Your task to perform on an android device: Go to Yahoo.com Image 0: 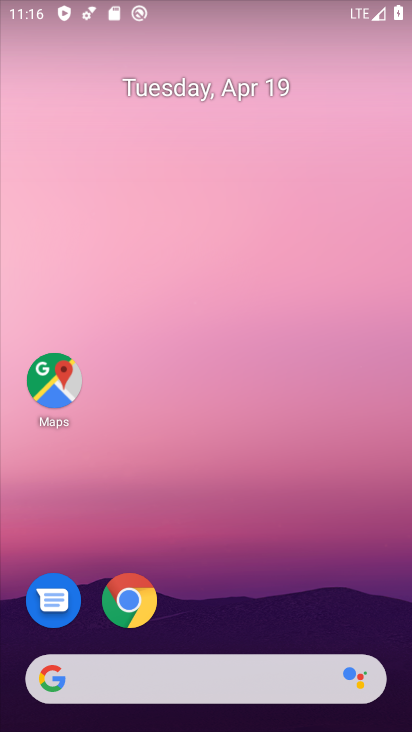
Step 0: click (130, 605)
Your task to perform on an android device: Go to Yahoo.com Image 1: 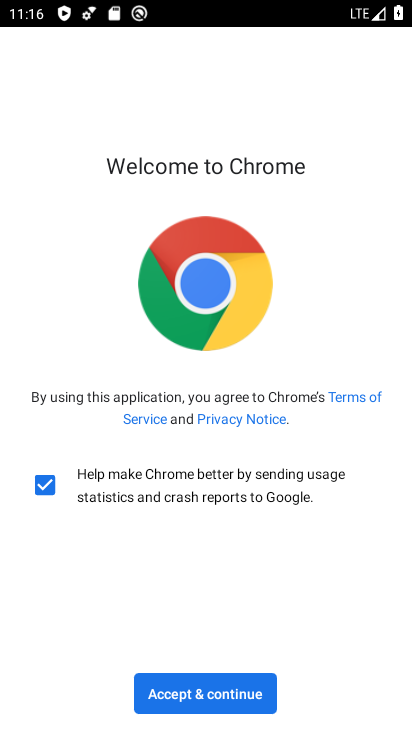
Step 1: click (203, 687)
Your task to perform on an android device: Go to Yahoo.com Image 2: 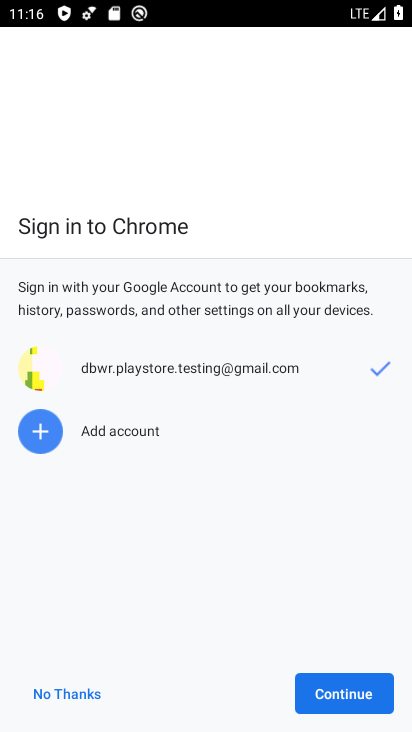
Step 2: click (25, 697)
Your task to perform on an android device: Go to Yahoo.com Image 3: 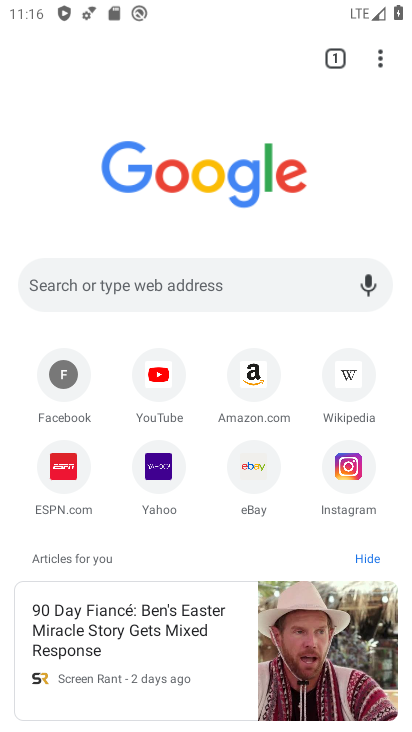
Step 3: click (155, 471)
Your task to perform on an android device: Go to Yahoo.com Image 4: 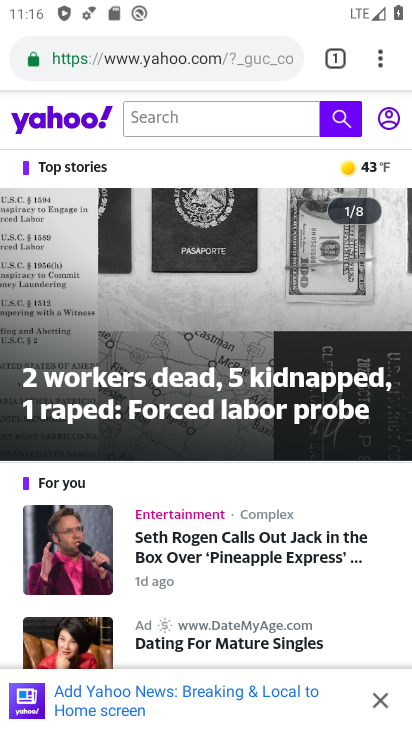
Step 4: task complete